Your task to perform on an android device: Go to Wikipedia Image 0: 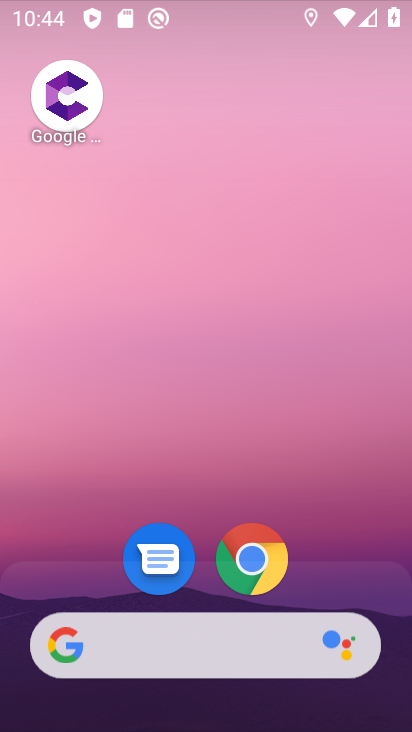
Step 0: drag from (228, 556) to (365, 123)
Your task to perform on an android device: Go to Wikipedia Image 1: 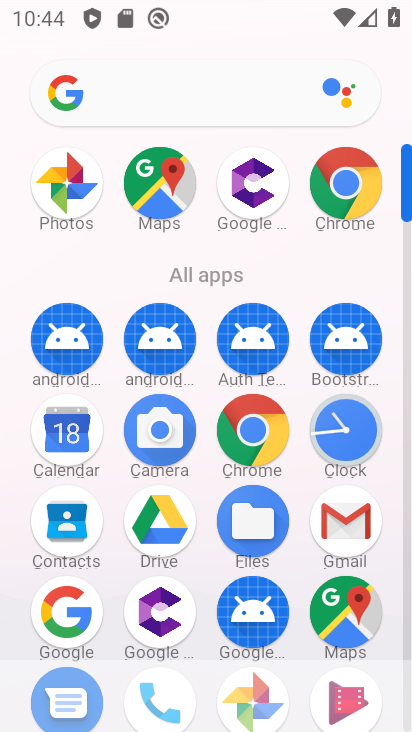
Step 1: click (245, 432)
Your task to perform on an android device: Go to Wikipedia Image 2: 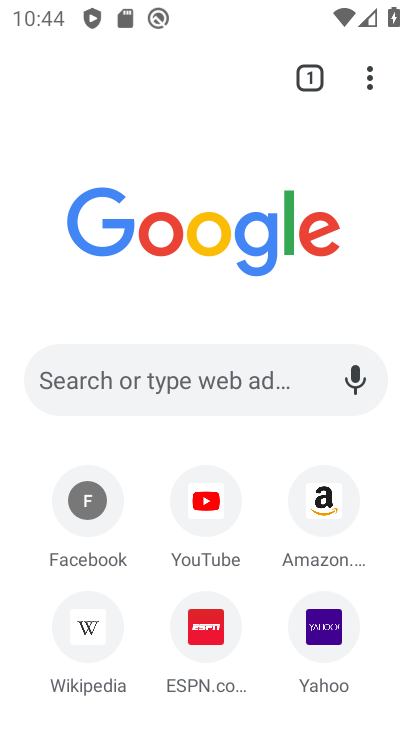
Step 2: click (100, 376)
Your task to perform on an android device: Go to Wikipedia Image 3: 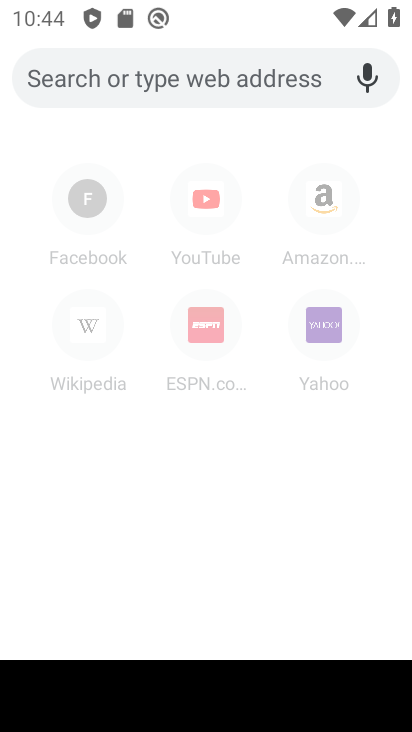
Step 3: click (165, 92)
Your task to perform on an android device: Go to Wikipedia Image 4: 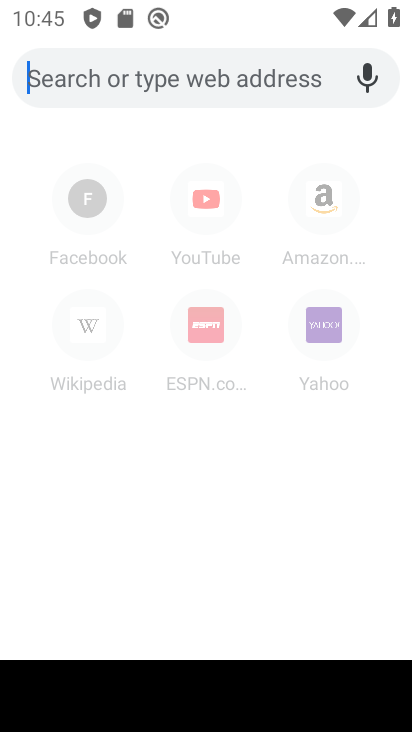
Step 4: type "wikipedia"
Your task to perform on an android device: Go to Wikipedia Image 5: 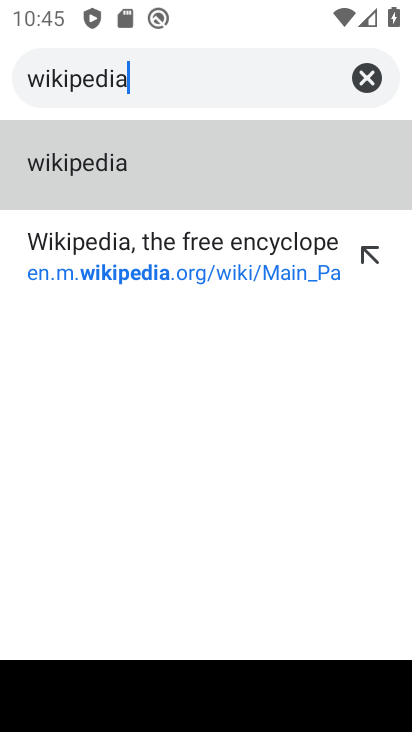
Step 5: click (161, 164)
Your task to perform on an android device: Go to Wikipedia Image 6: 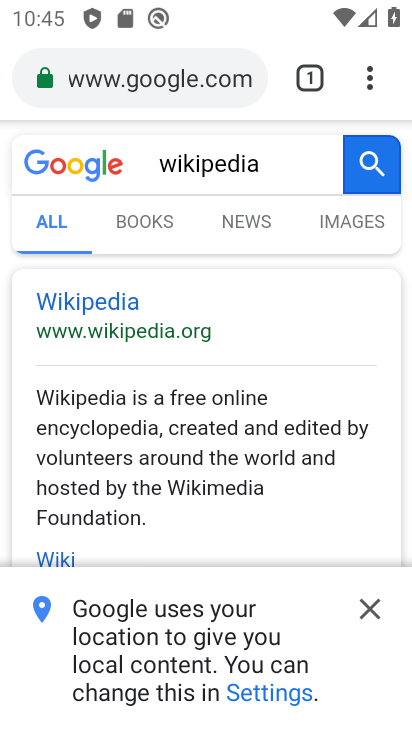
Step 6: task complete